Your task to perform on an android device: install app "AliExpress" Image 0: 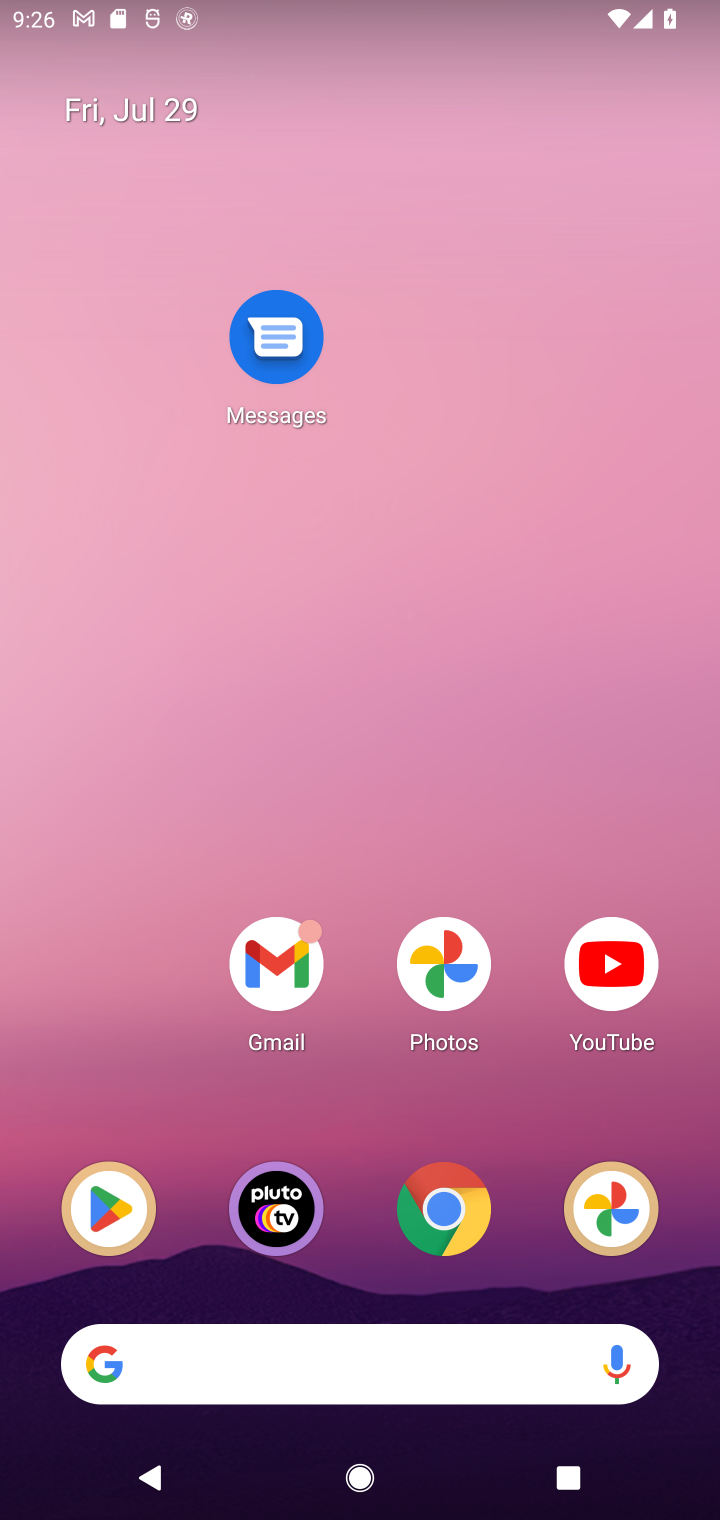
Step 0: drag from (354, 1329) to (487, 224)
Your task to perform on an android device: install app "AliExpress" Image 1: 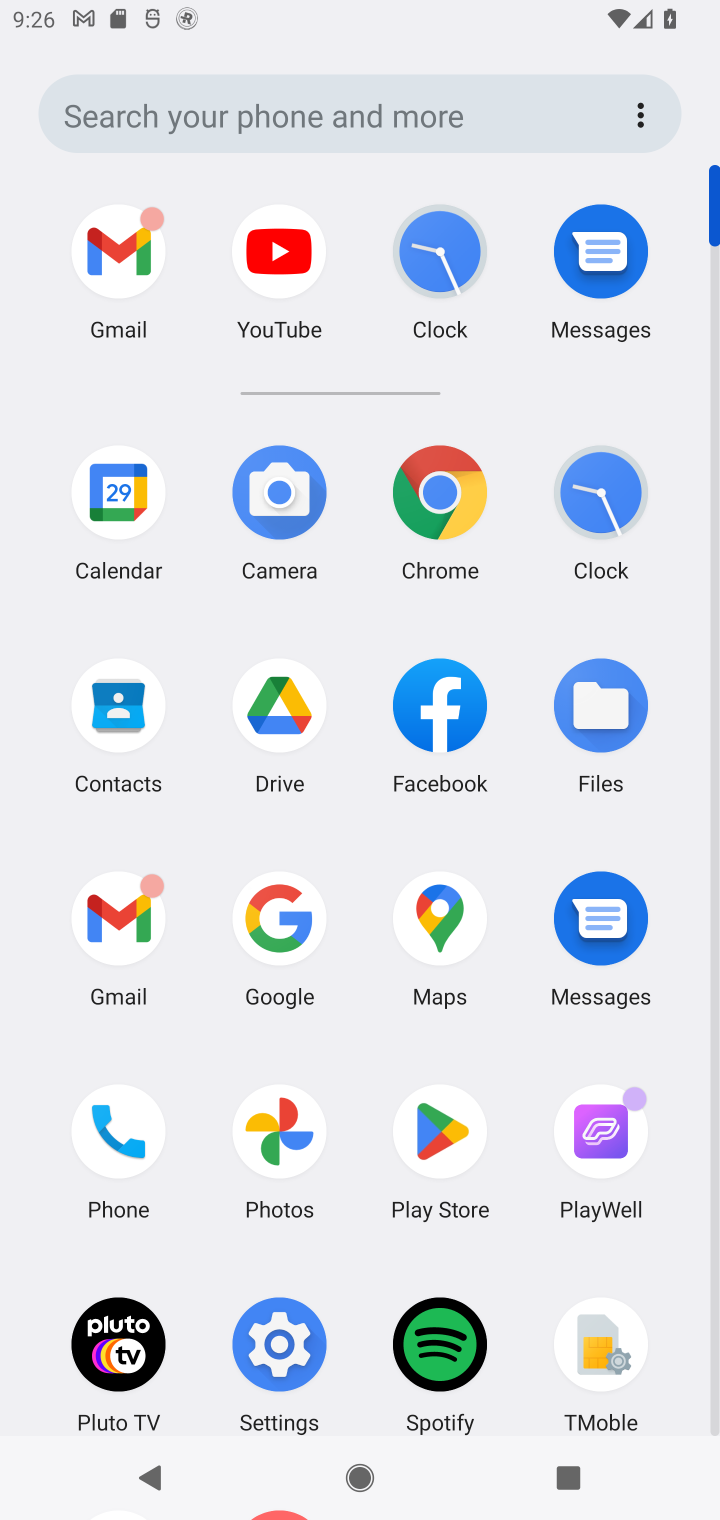
Step 1: click (446, 1130)
Your task to perform on an android device: install app "AliExpress" Image 2: 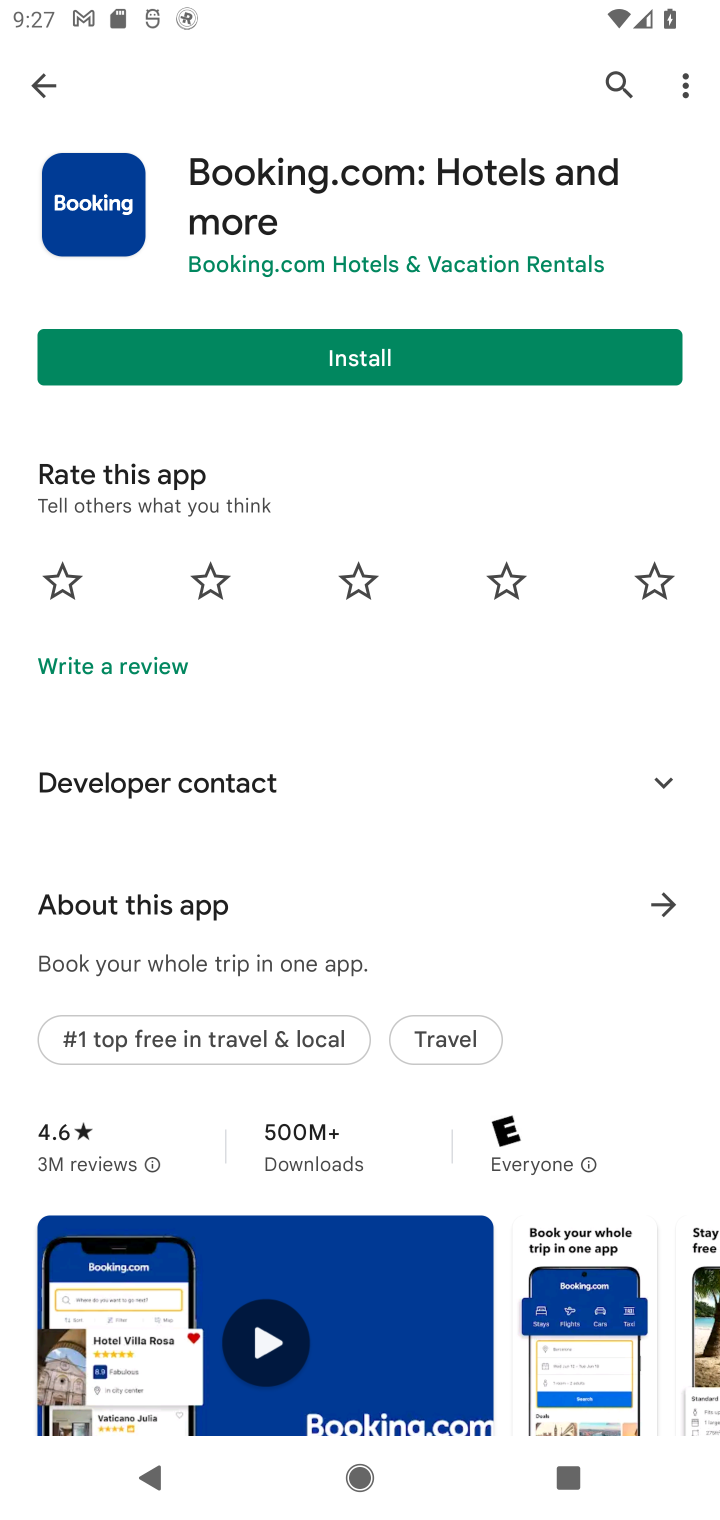
Step 2: click (608, 75)
Your task to perform on an android device: install app "AliExpress" Image 3: 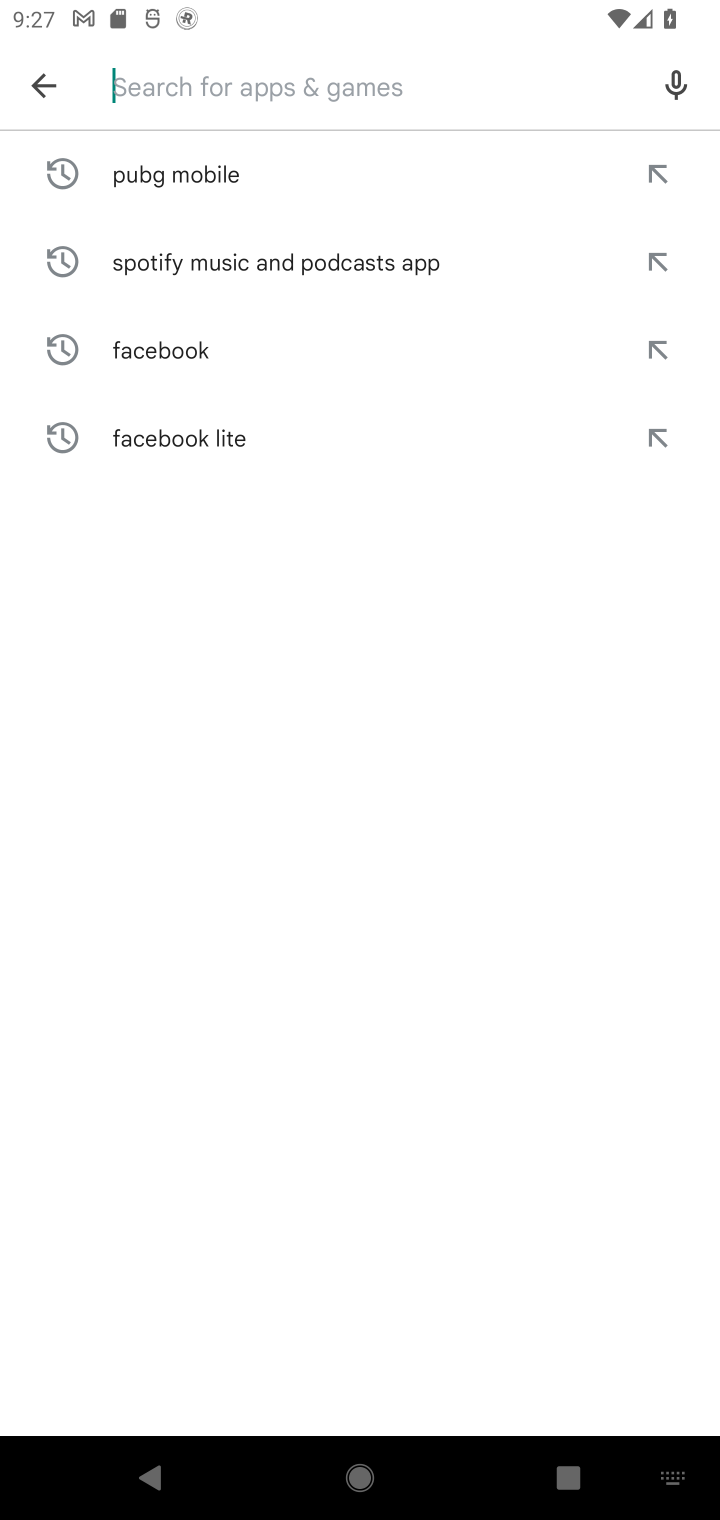
Step 3: type ""
Your task to perform on an android device: install app "AliExpress" Image 4: 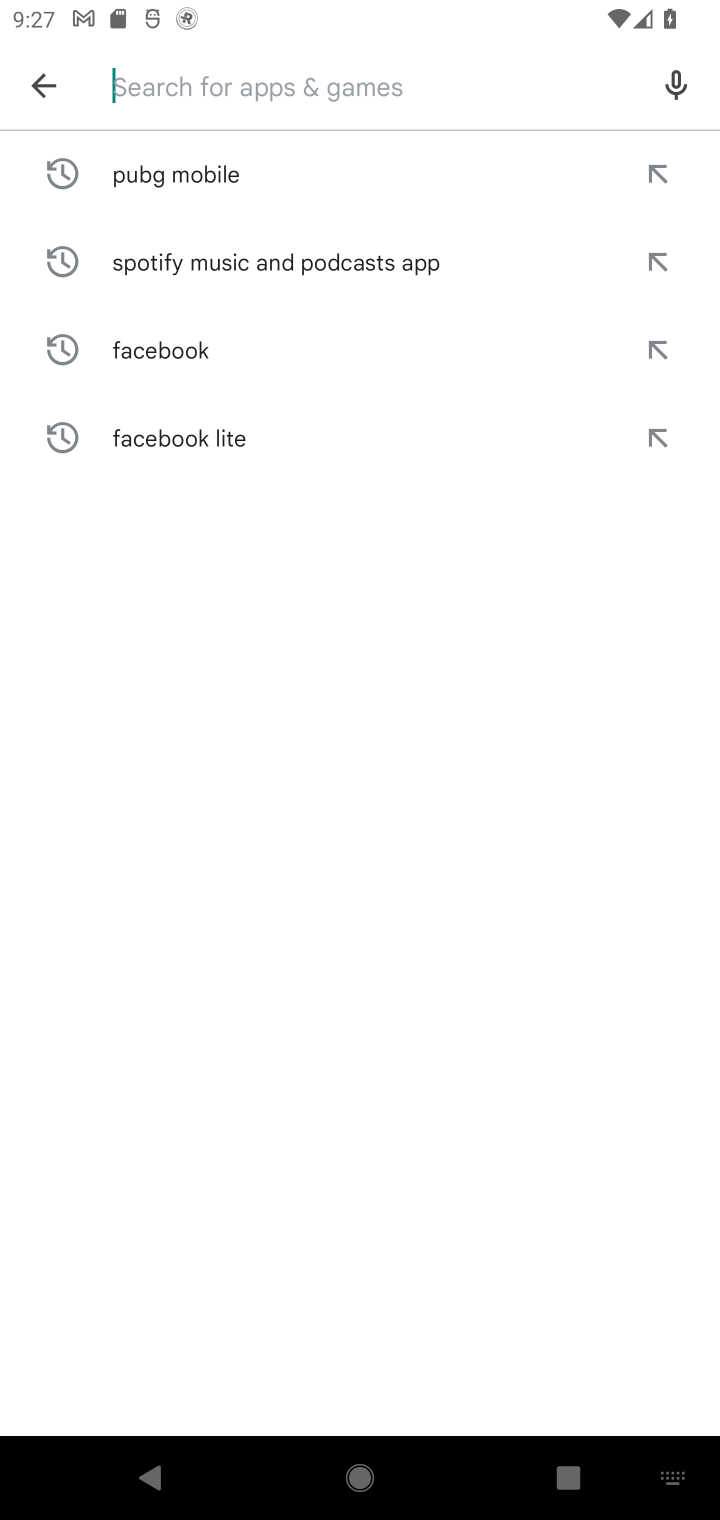
Step 4: type "AliExpress"
Your task to perform on an android device: install app "AliExpress" Image 5: 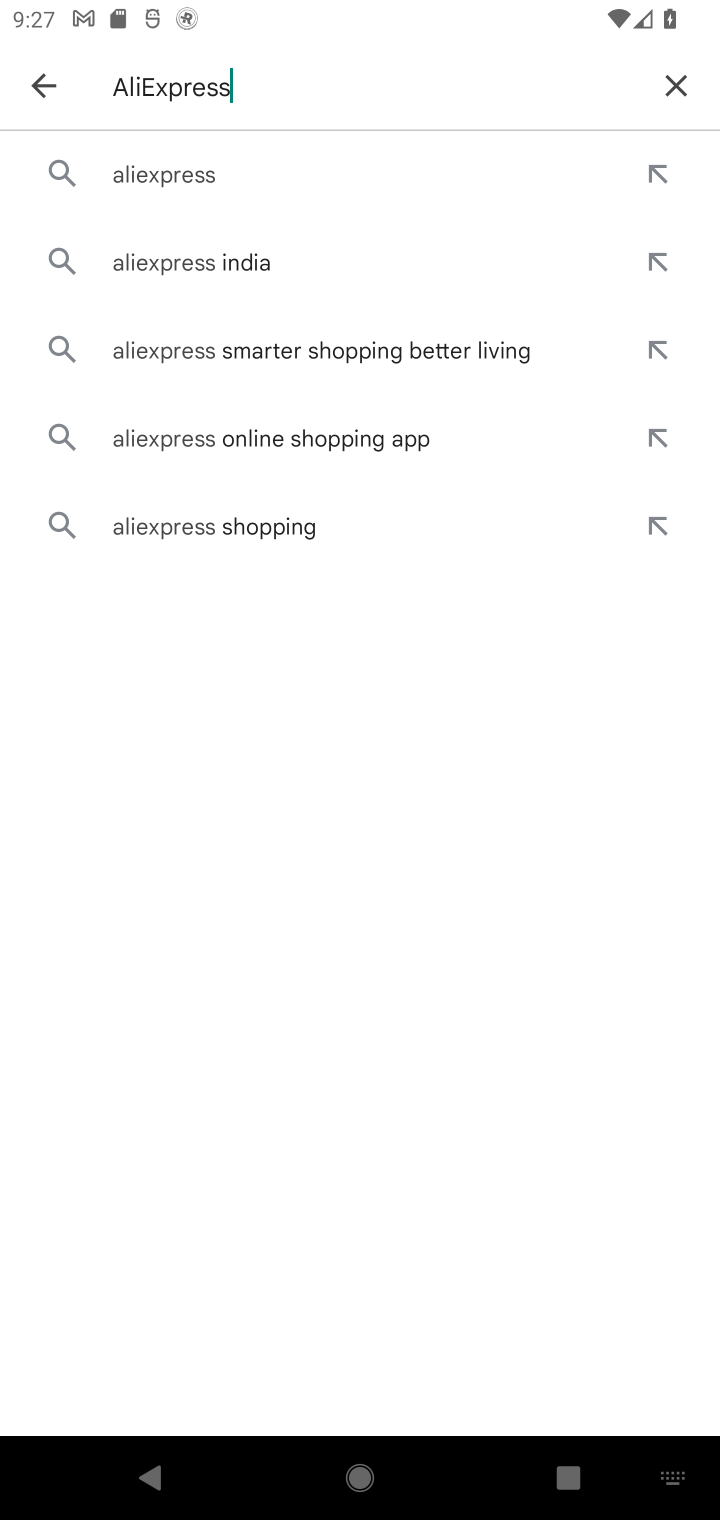
Step 5: click (146, 181)
Your task to perform on an android device: install app "AliExpress" Image 6: 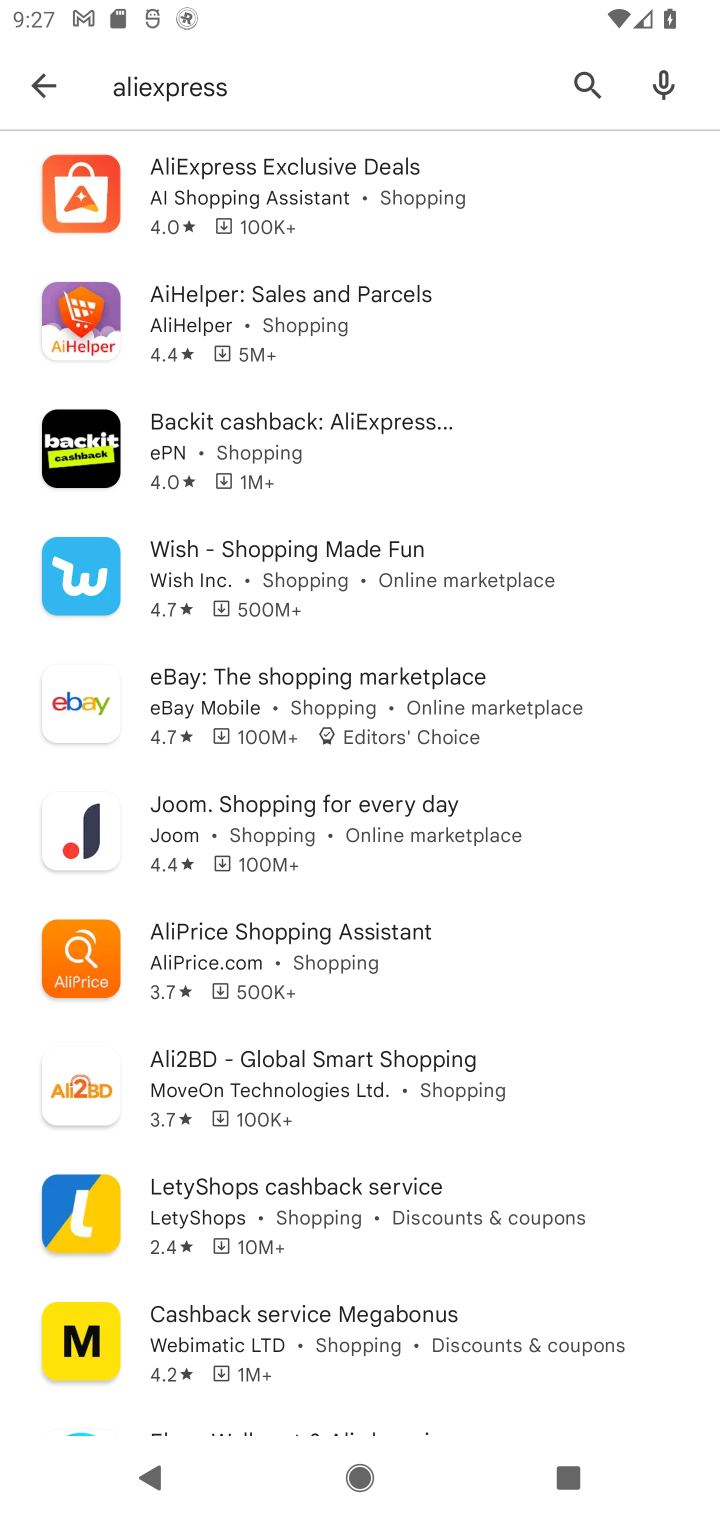
Step 6: click (253, 172)
Your task to perform on an android device: install app "AliExpress" Image 7: 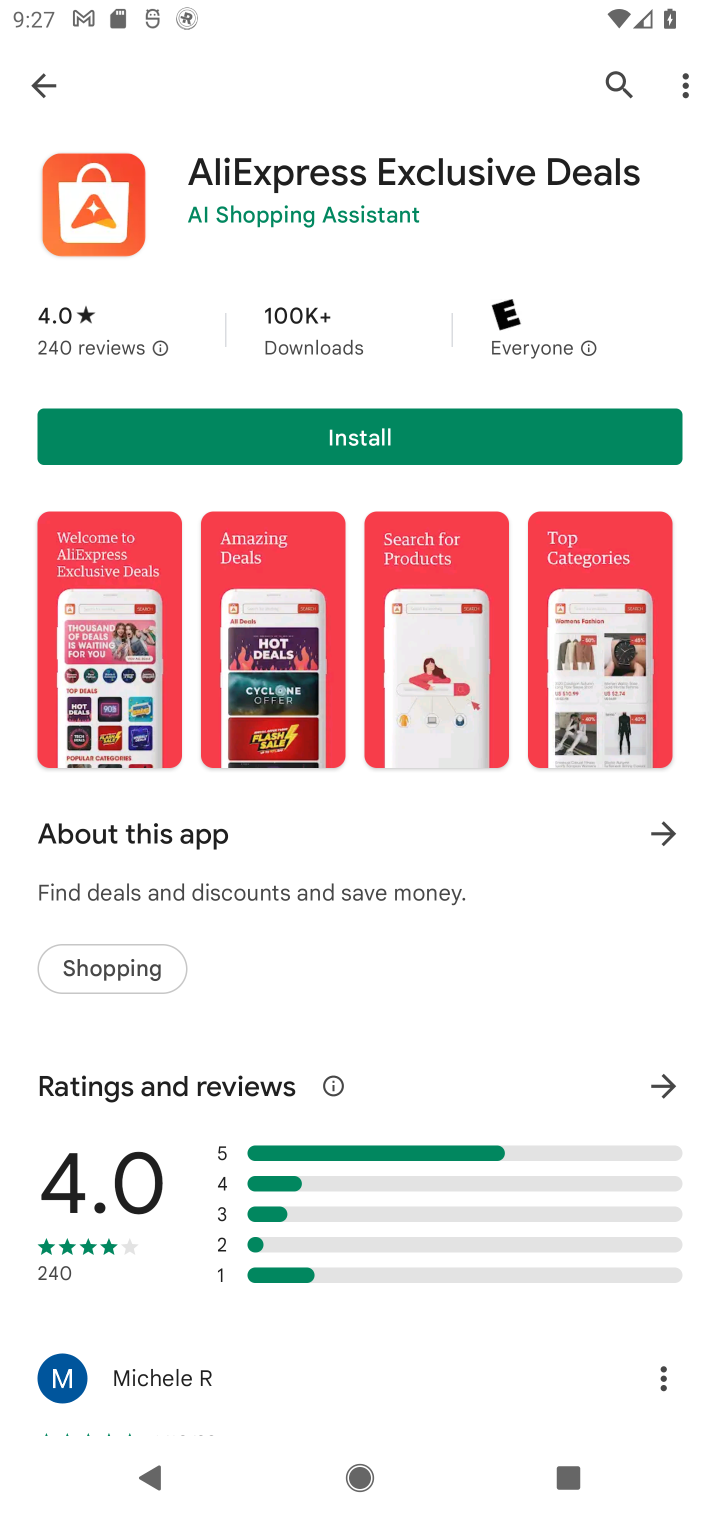
Step 7: click (447, 437)
Your task to perform on an android device: install app "AliExpress" Image 8: 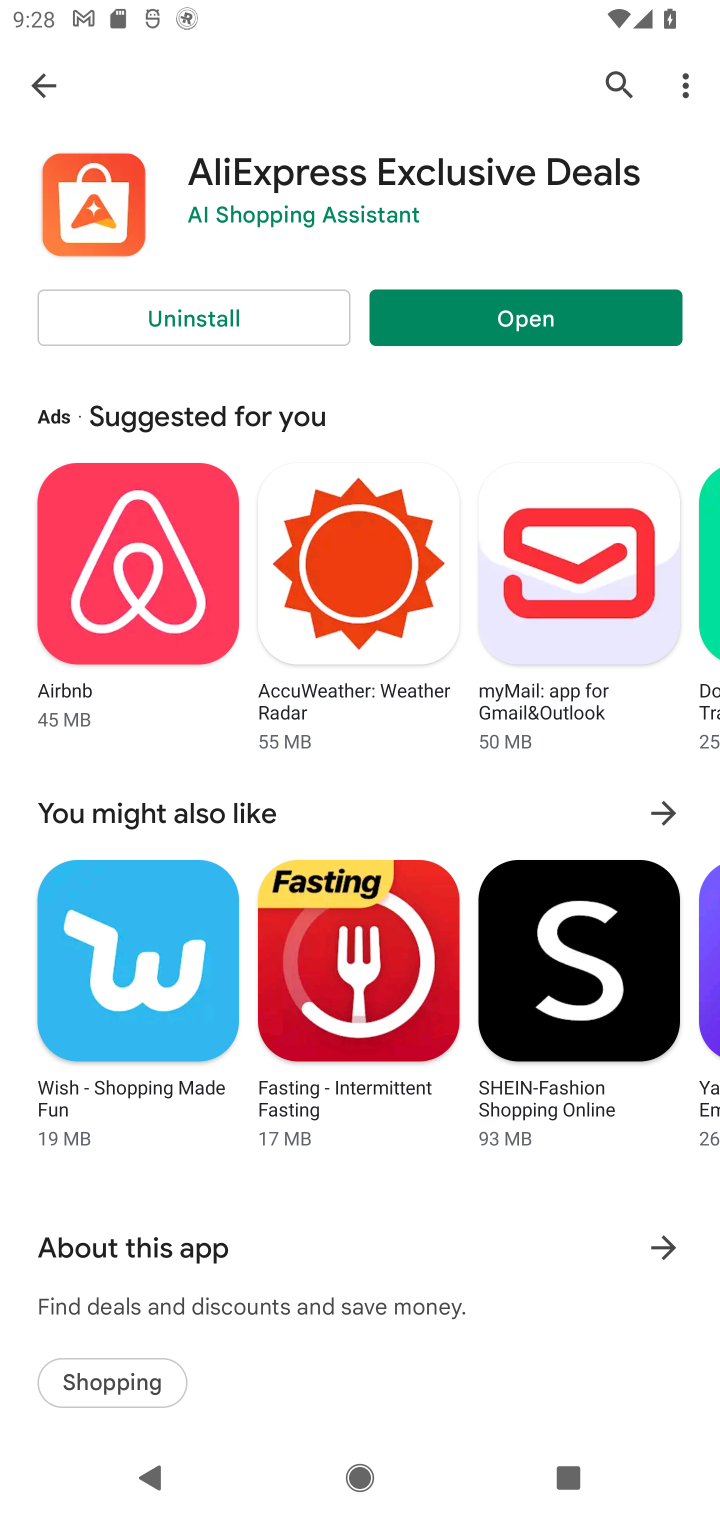
Step 8: task complete